Your task to perform on an android device: search for starred emails in the gmail app Image 0: 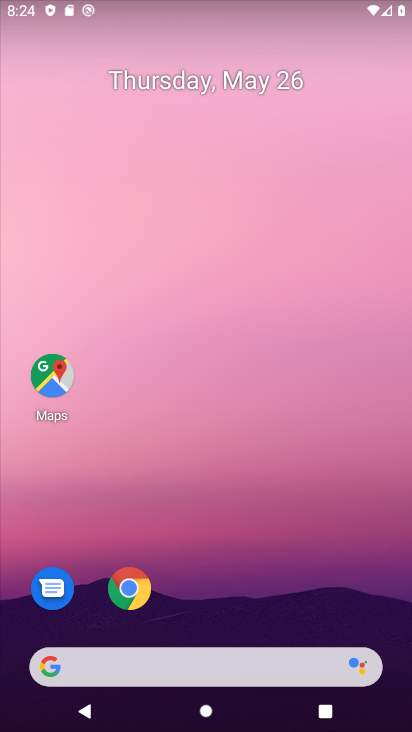
Step 0: drag from (308, 609) to (300, 14)
Your task to perform on an android device: search for starred emails in the gmail app Image 1: 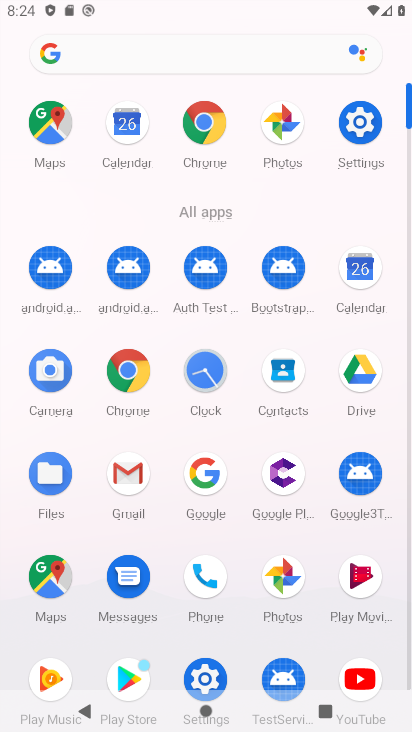
Step 1: click (125, 471)
Your task to perform on an android device: search for starred emails in the gmail app Image 2: 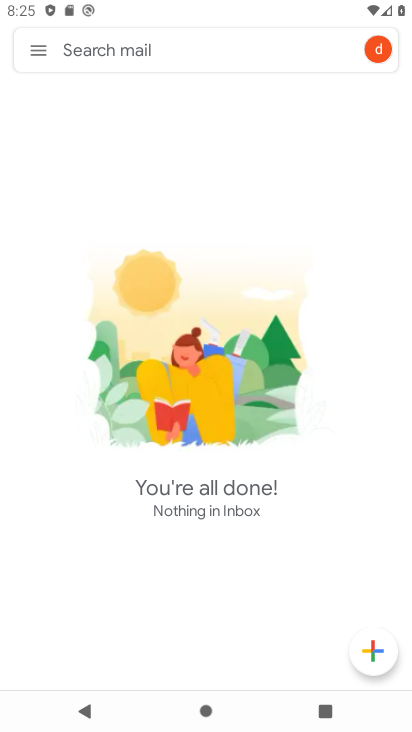
Step 2: click (25, 47)
Your task to perform on an android device: search for starred emails in the gmail app Image 3: 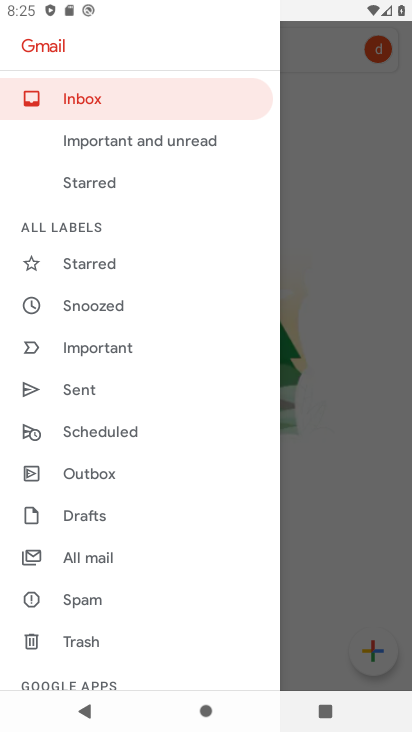
Step 3: click (112, 260)
Your task to perform on an android device: search for starred emails in the gmail app Image 4: 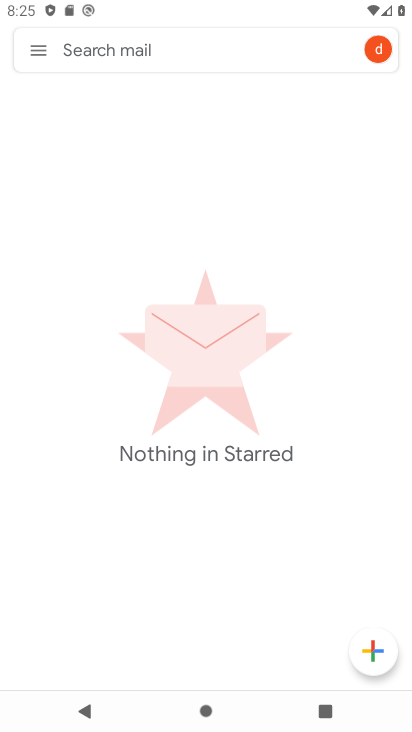
Step 4: task complete